Your task to perform on an android device: Open Yahoo.com Image 0: 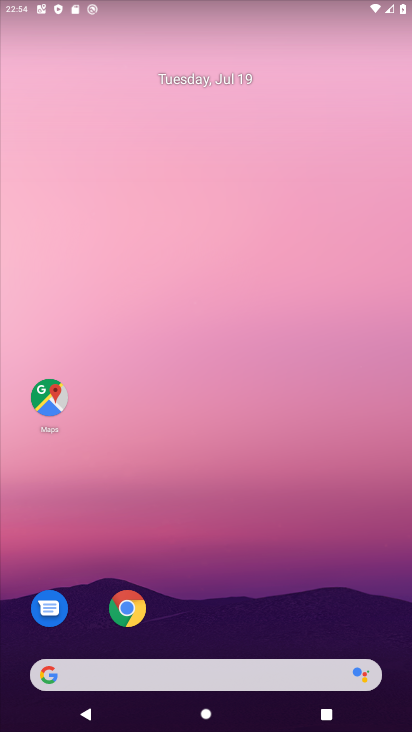
Step 0: drag from (262, 612) to (262, 41)
Your task to perform on an android device: Open Yahoo.com Image 1: 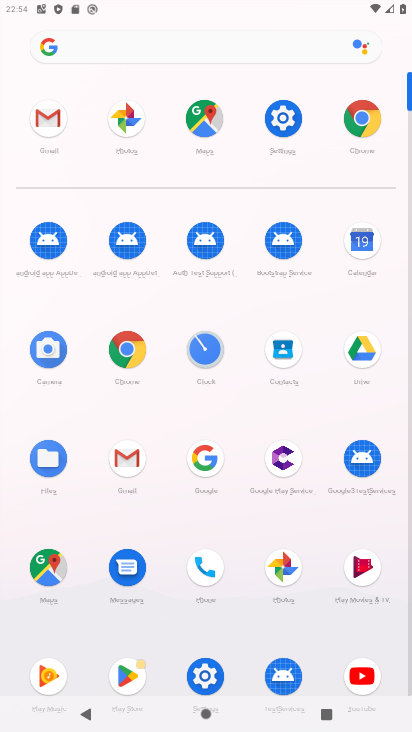
Step 1: click (370, 118)
Your task to perform on an android device: Open Yahoo.com Image 2: 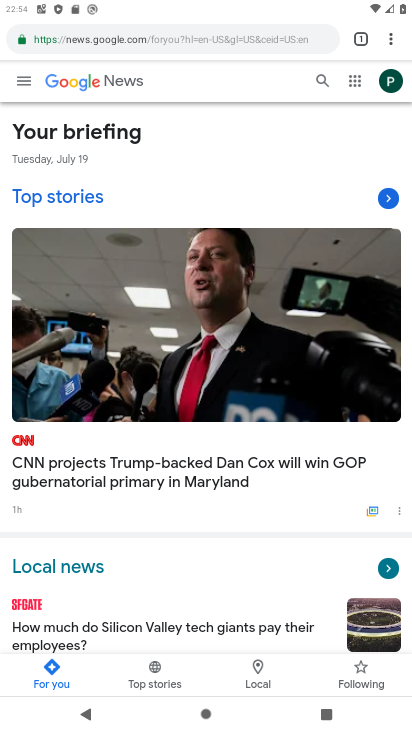
Step 2: click (182, 36)
Your task to perform on an android device: Open Yahoo.com Image 3: 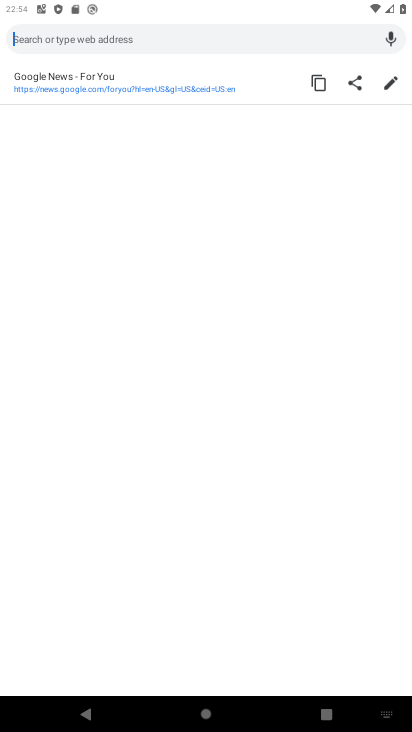
Step 3: type "yahoo.com"
Your task to perform on an android device: Open Yahoo.com Image 4: 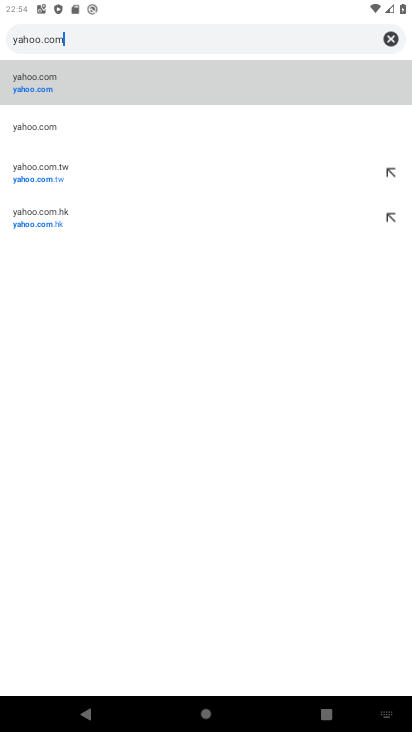
Step 4: click (65, 84)
Your task to perform on an android device: Open Yahoo.com Image 5: 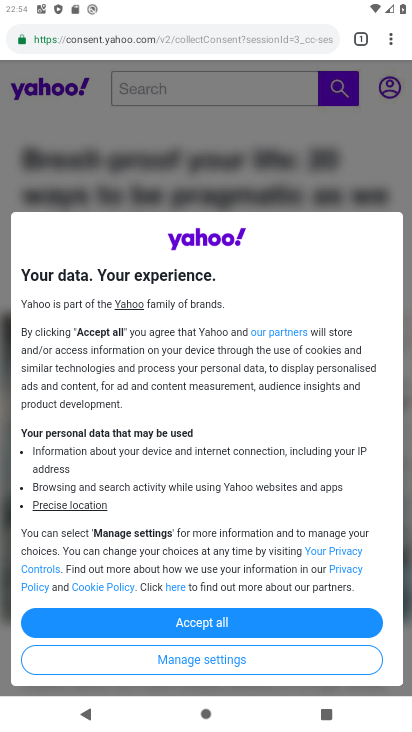
Step 5: task complete